Your task to perform on an android device: Search for hotels in Los Angeles Image 0: 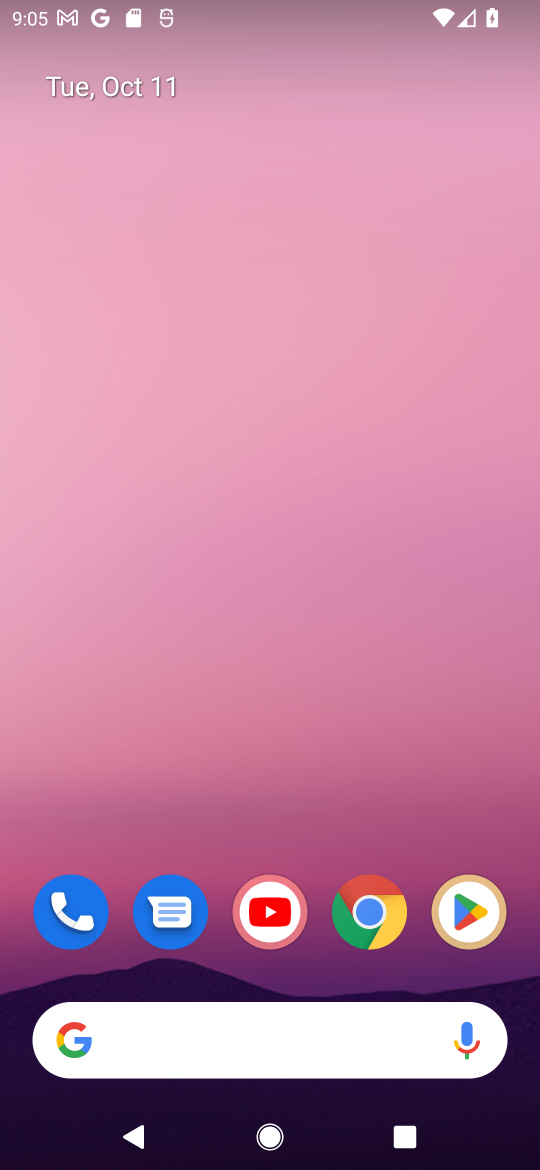
Step 0: click (368, 916)
Your task to perform on an android device: Search for hotels in Los Angeles Image 1: 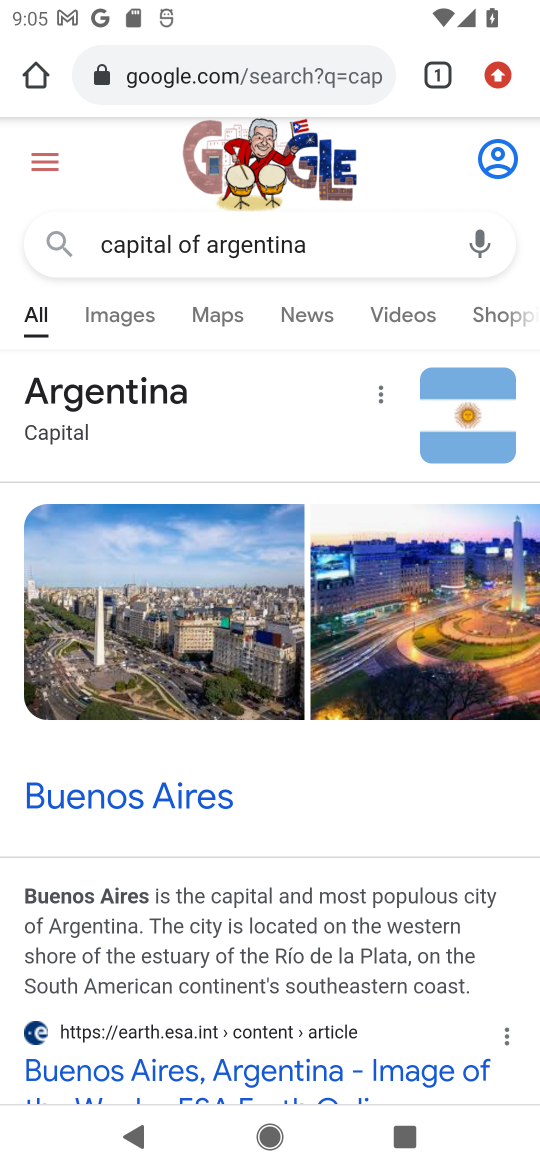
Step 1: click (235, 51)
Your task to perform on an android device: Search for hotels in Los Angeles Image 2: 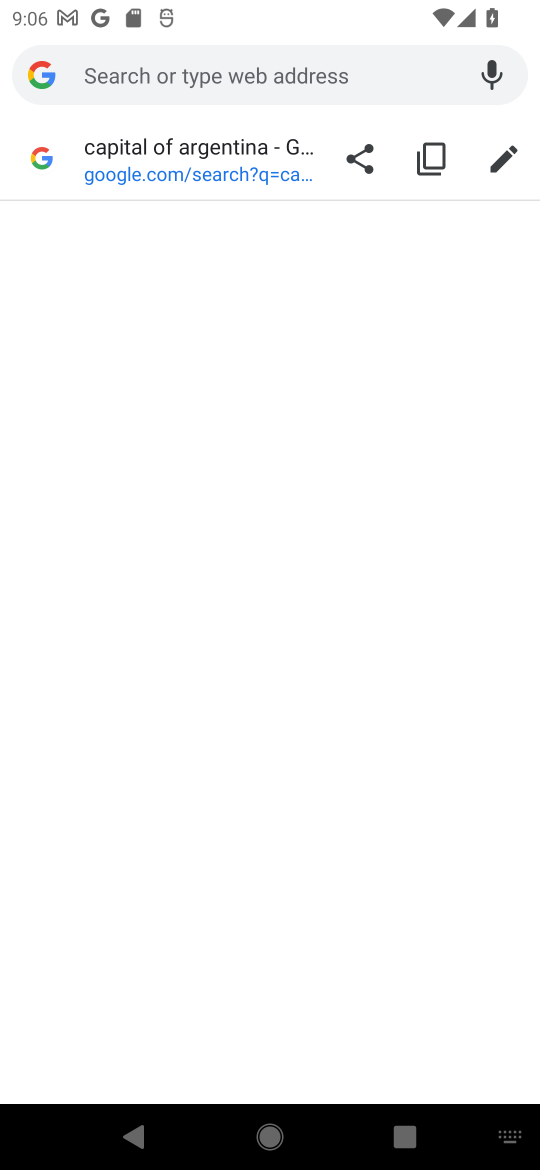
Step 2: type "hotels in Los Angeles"
Your task to perform on an android device: Search for hotels in Los Angeles Image 3: 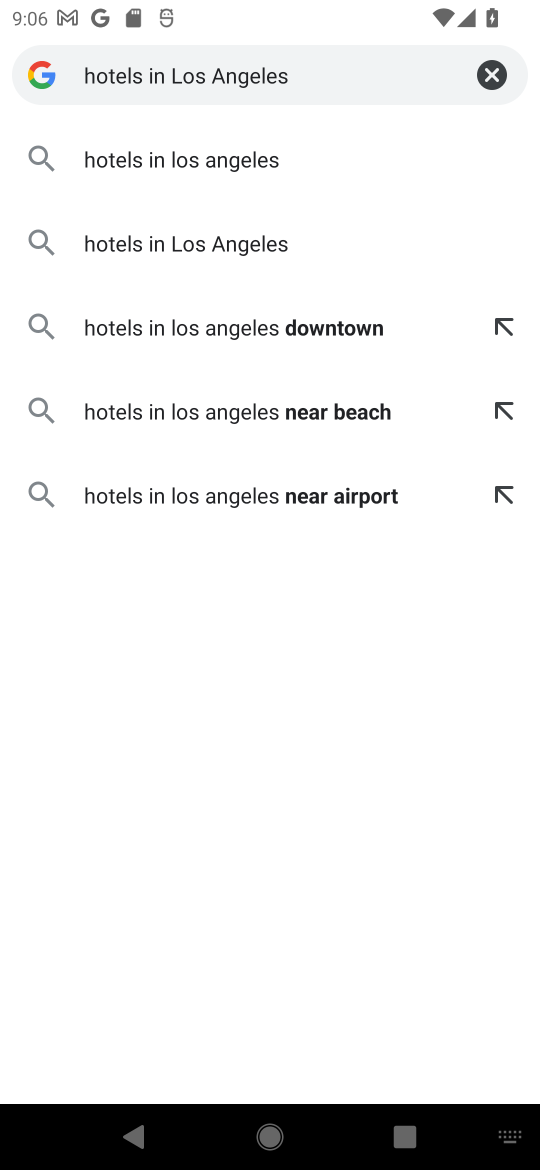
Step 3: click (182, 167)
Your task to perform on an android device: Search for hotels in Los Angeles Image 4: 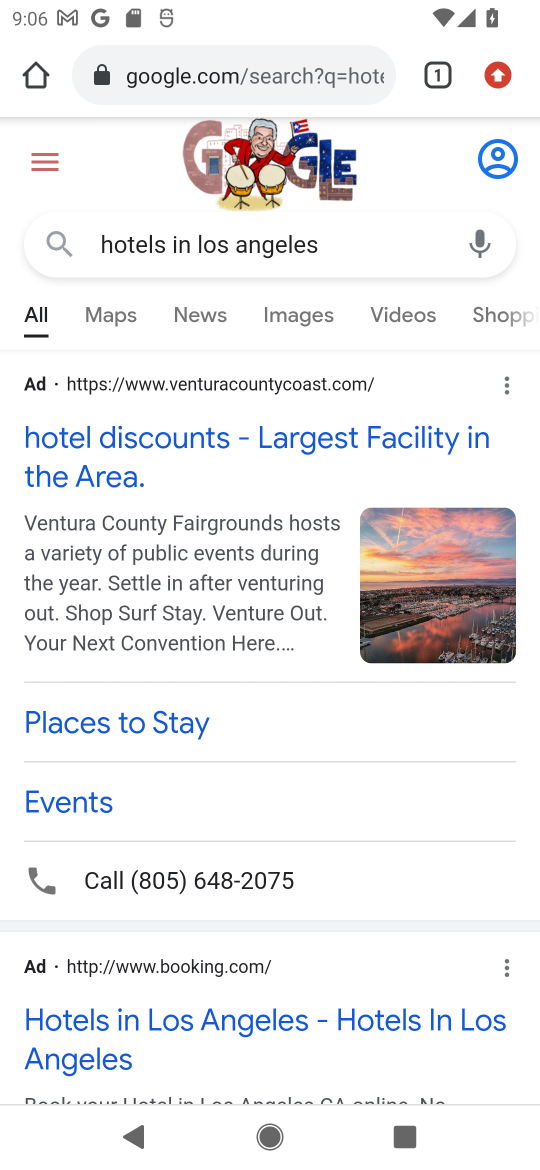
Step 4: drag from (259, 678) to (237, 201)
Your task to perform on an android device: Search for hotels in Los Angeles Image 5: 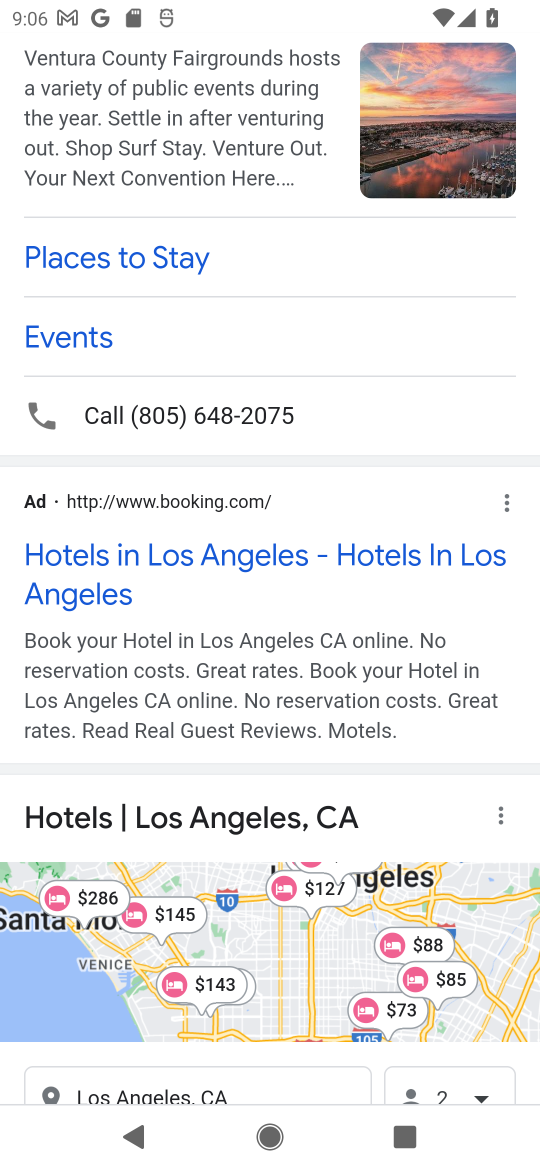
Step 5: click (94, 559)
Your task to perform on an android device: Search for hotels in Los Angeles Image 6: 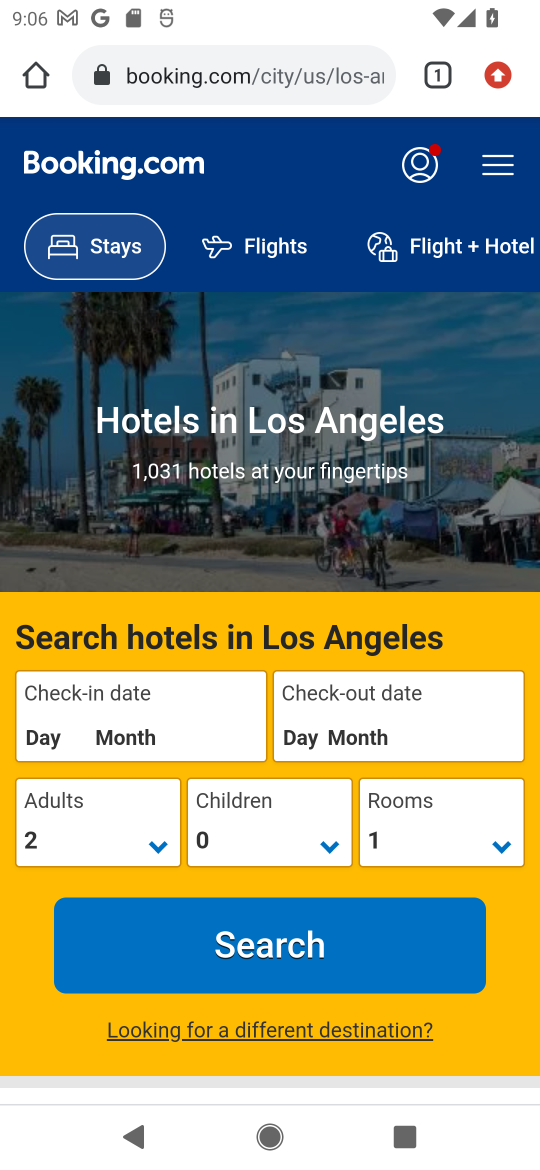
Step 6: click (264, 948)
Your task to perform on an android device: Search for hotels in Los Angeles Image 7: 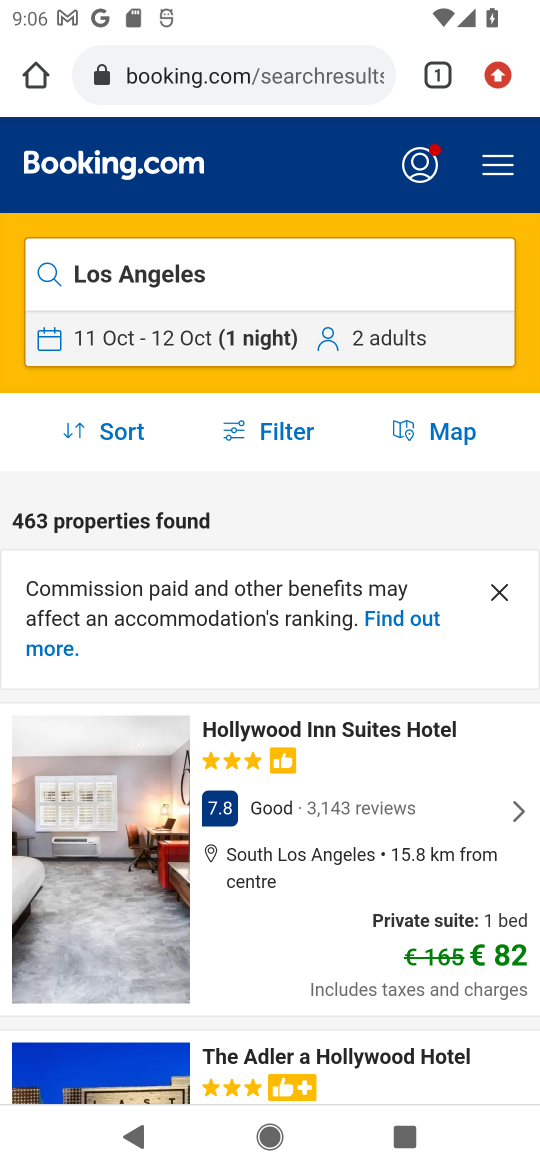
Step 7: task complete